Your task to perform on an android device: set the stopwatch Image 0: 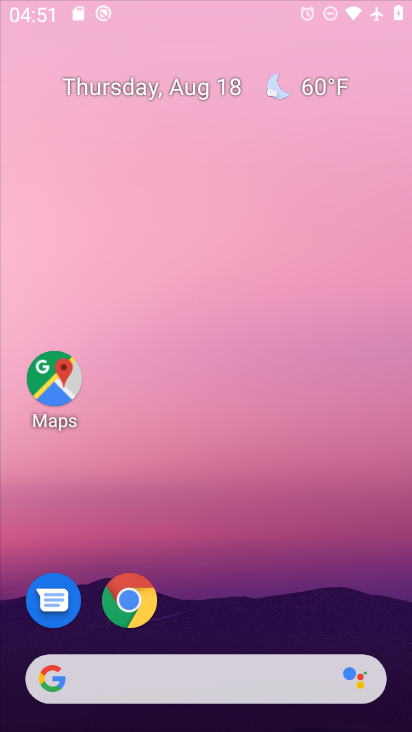
Step 0: press home button
Your task to perform on an android device: set the stopwatch Image 1: 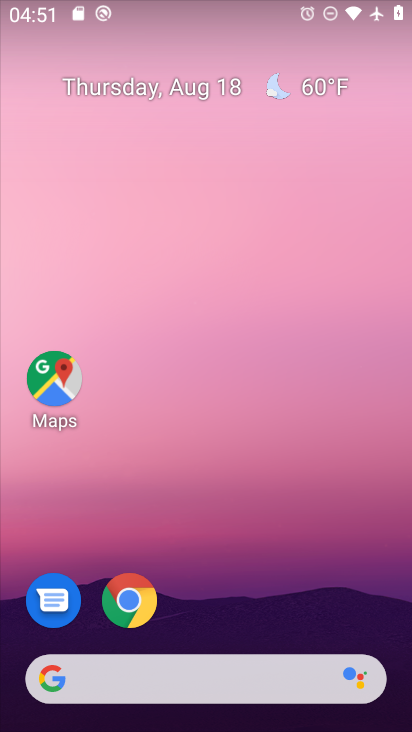
Step 1: drag from (225, 627) to (212, 75)
Your task to perform on an android device: set the stopwatch Image 2: 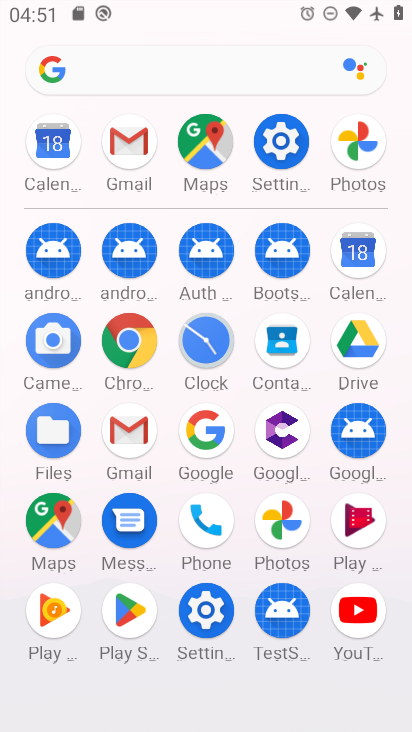
Step 2: click (194, 348)
Your task to perform on an android device: set the stopwatch Image 3: 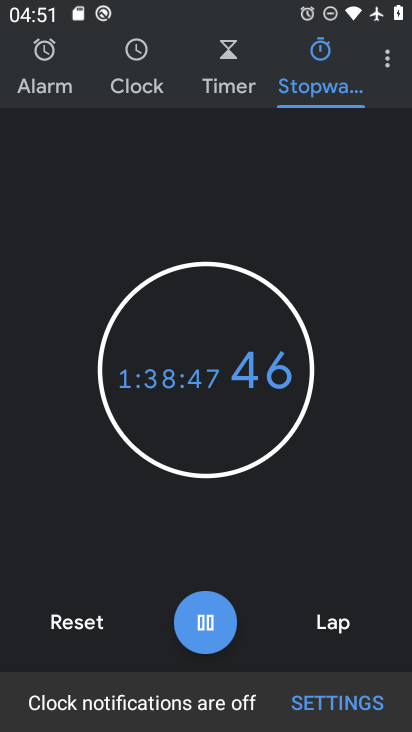
Step 3: task complete